Your task to perform on an android device: Go to calendar. Show me events next week Image 0: 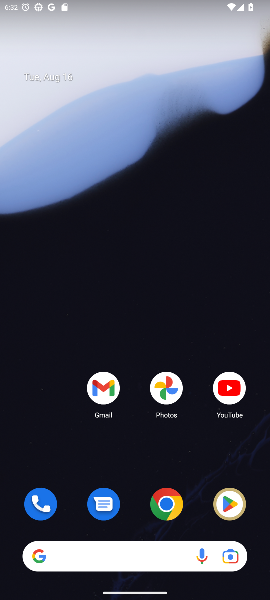
Step 0: drag from (4, 573) to (249, 40)
Your task to perform on an android device: Go to calendar. Show me events next week Image 1: 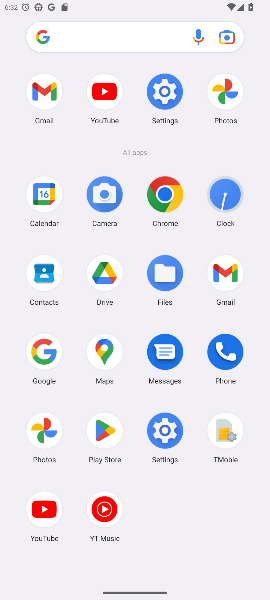
Step 1: click (42, 186)
Your task to perform on an android device: Go to calendar. Show me events next week Image 2: 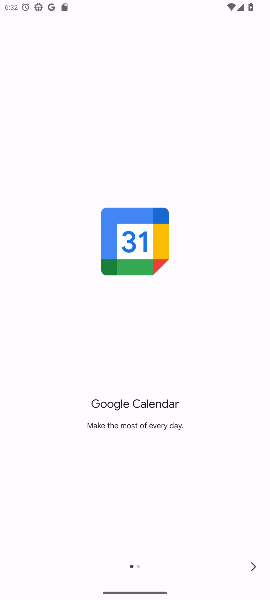
Step 2: click (247, 562)
Your task to perform on an android device: Go to calendar. Show me events next week Image 3: 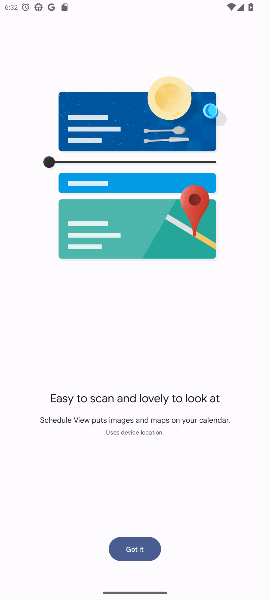
Step 3: click (135, 549)
Your task to perform on an android device: Go to calendar. Show me events next week Image 4: 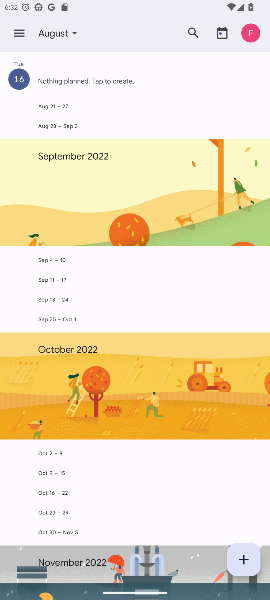
Step 4: click (69, 32)
Your task to perform on an android device: Go to calendar. Show me events next week Image 5: 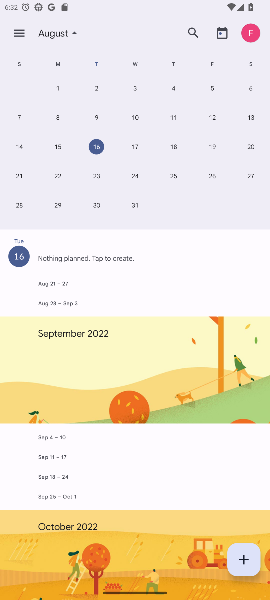
Step 5: task complete